Your task to perform on an android device: Go to location settings Image 0: 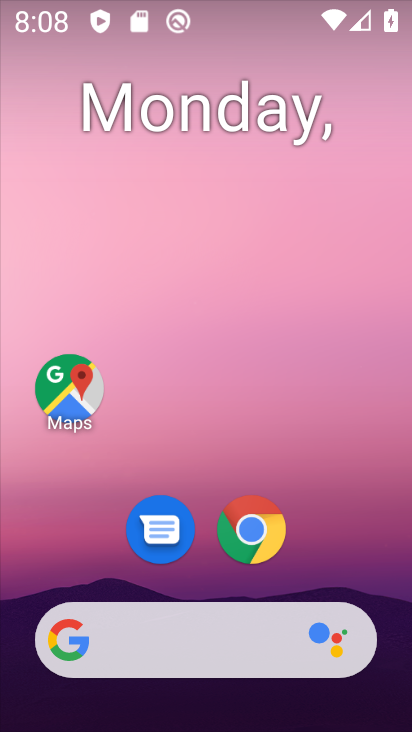
Step 0: drag from (233, 623) to (171, 80)
Your task to perform on an android device: Go to location settings Image 1: 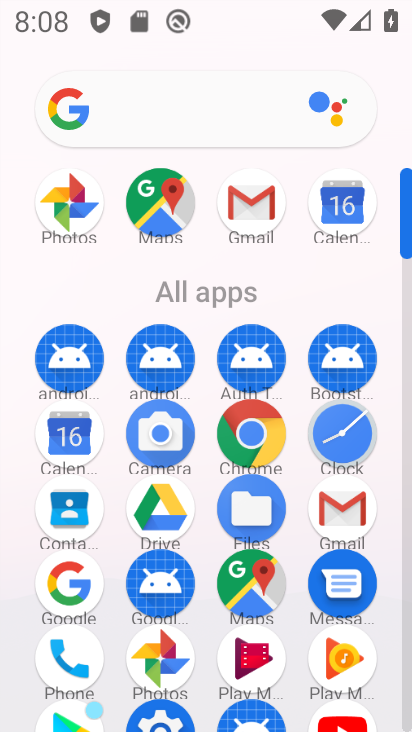
Step 1: drag from (212, 595) to (214, 105)
Your task to perform on an android device: Go to location settings Image 2: 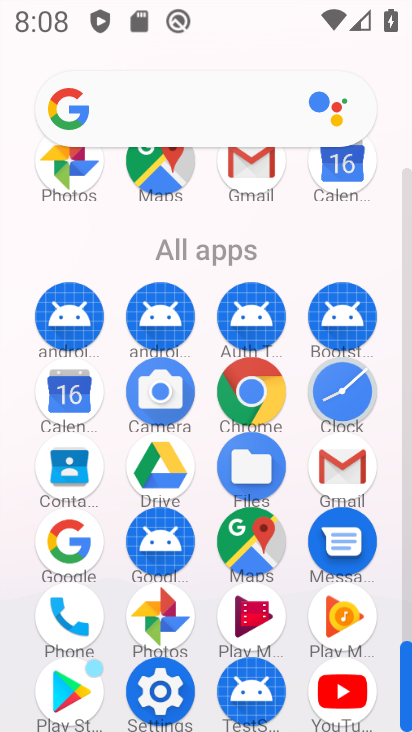
Step 2: click (148, 711)
Your task to perform on an android device: Go to location settings Image 3: 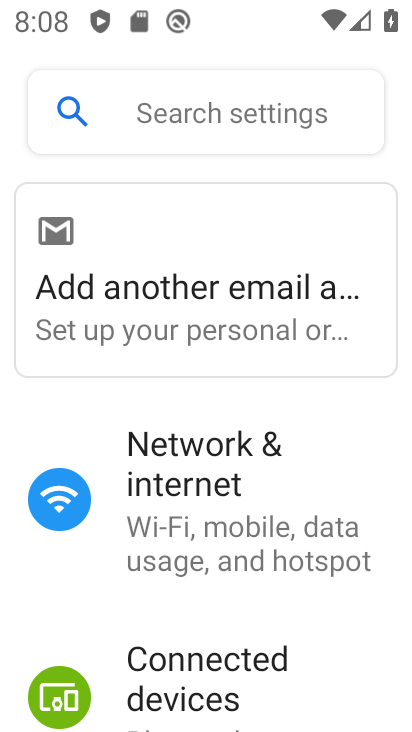
Step 3: drag from (201, 620) to (177, 3)
Your task to perform on an android device: Go to location settings Image 4: 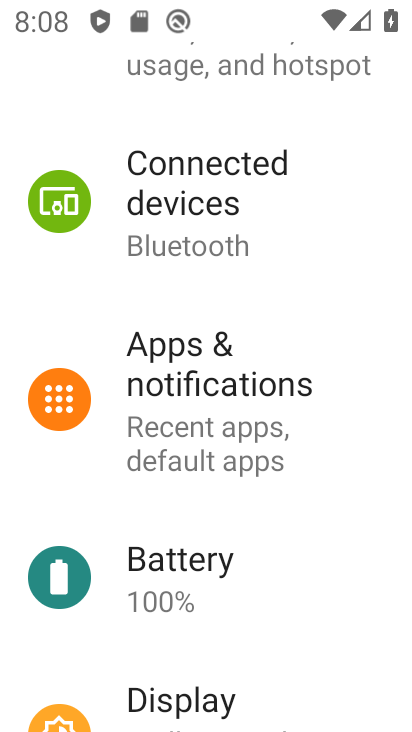
Step 4: drag from (199, 632) to (147, 0)
Your task to perform on an android device: Go to location settings Image 5: 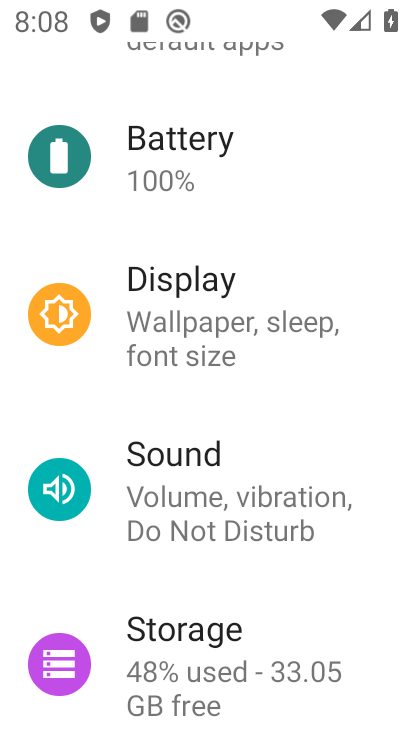
Step 5: drag from (197, 673) to (162, 132)
Your task to perform on an android device: Go to location settings Image 6: 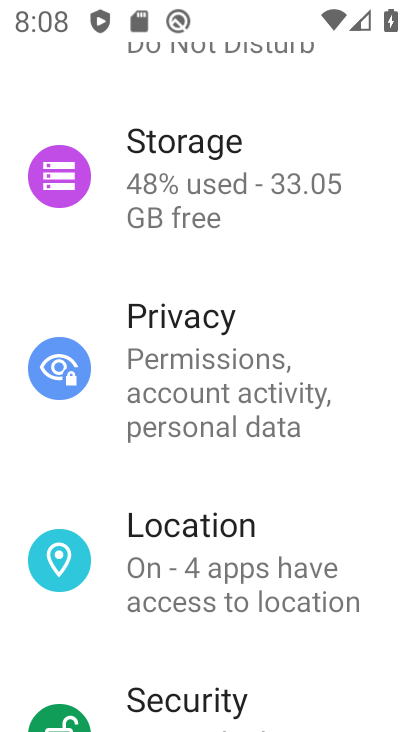
Step 6: click (184, 557)
Your task to perform on an android device: Go to location settings Image 7: 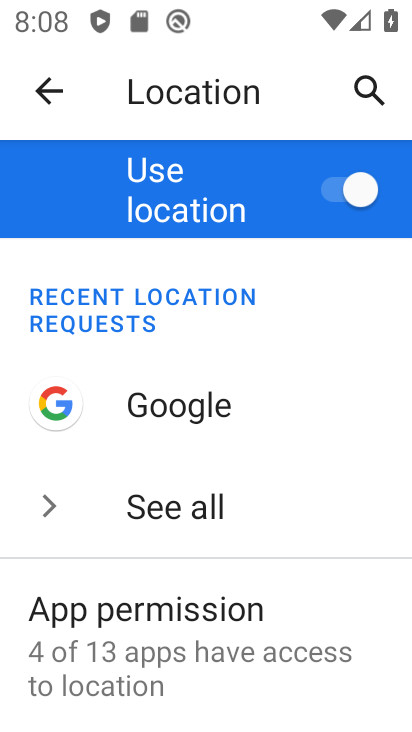
Step 7: task complete